Your task to perform on an android device: Go to location settings Image 0: 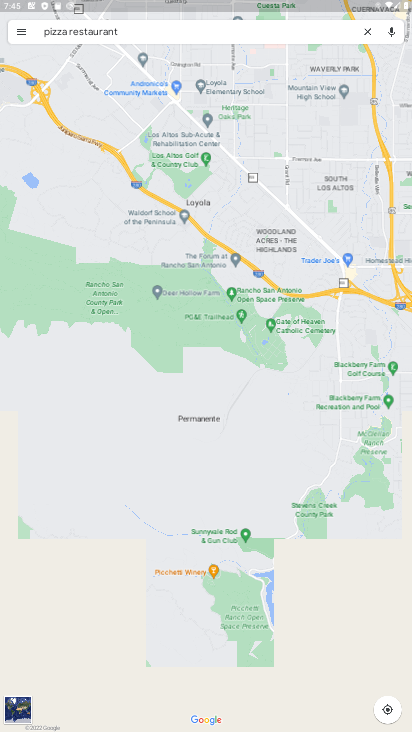
Step 0: press home button
Your task to perform on an android device: Go to location settings Image 1: 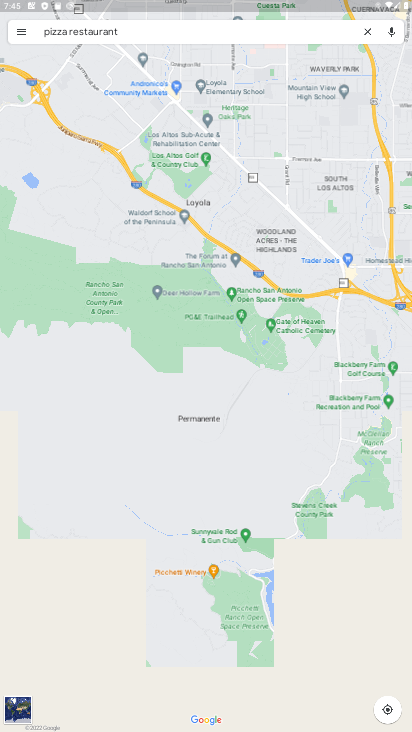
Step 1: drag from (228, 521) to (237, 213)
Your task to perform on an android device: Go to location settings Image 2: 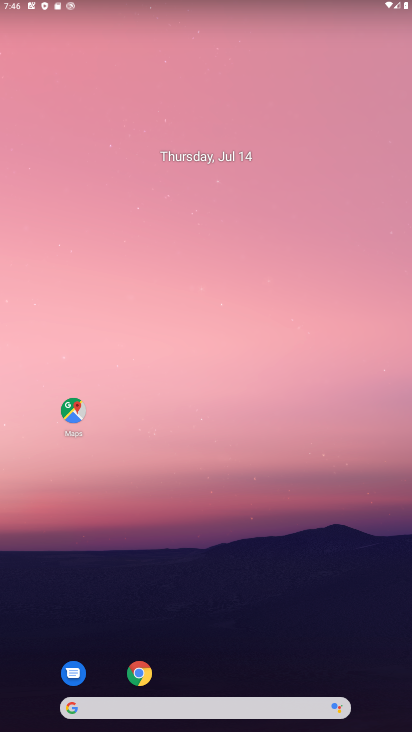
Step 2: drag from (208, 484) to (211, 243)
Your task to perform on an android device: Go to location settings Image 3: 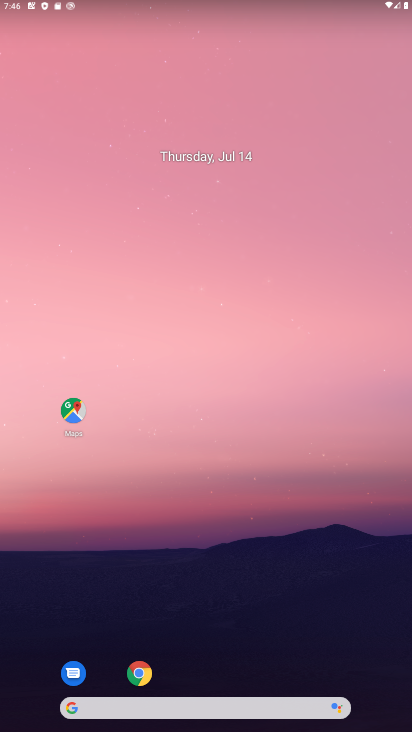
Step 3: drag from (214, 608) to (220, 310)
Your task to perform on an android device: Go to location settings Image 4: 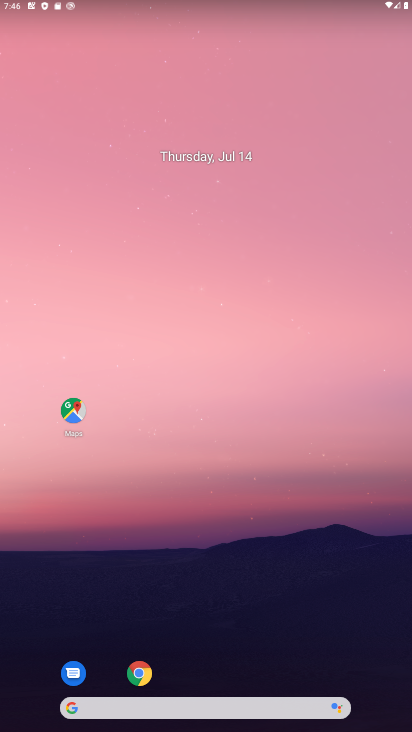
Step 4: drag from (210, 680) to (228, 430)
Your task to perform on an android device: Go to location settings Image 5: 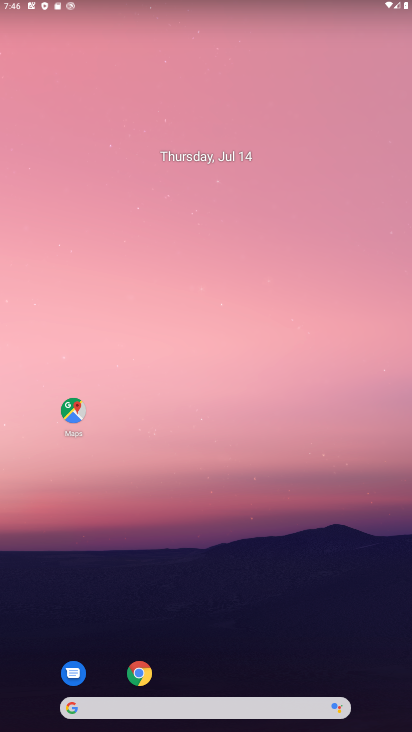
Step 5: drag from (186, 651) to (211, 194)
Your task to perform on an android device: Go to location settings Image 6: 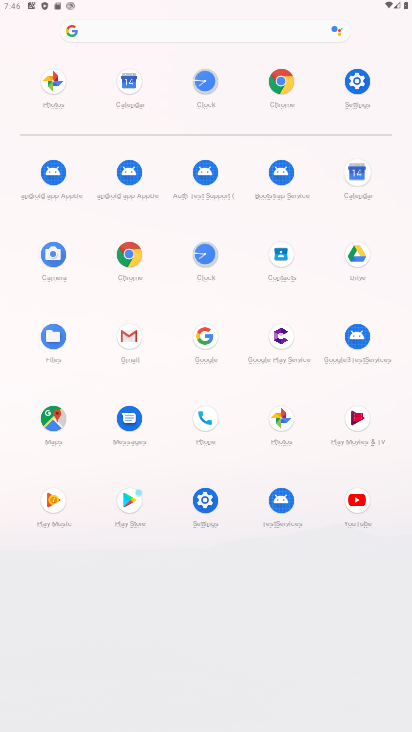
Step 6: click (352, 86)
Your task to perform on an android device: Go to location settings Image 7: 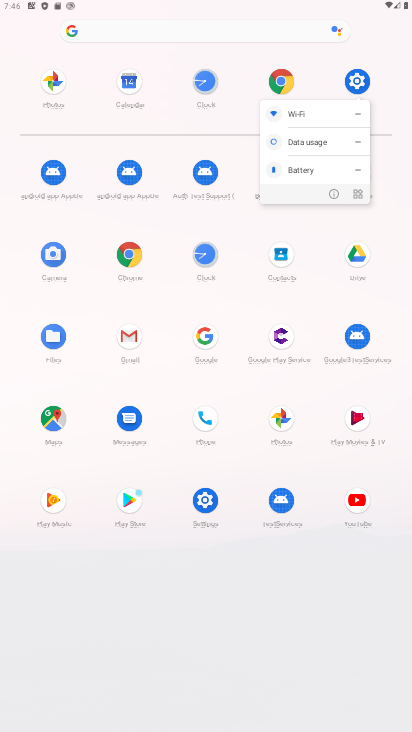
Step 7: click (332, 197)
Your task to perform on an android device: Go to location settings Image 8: 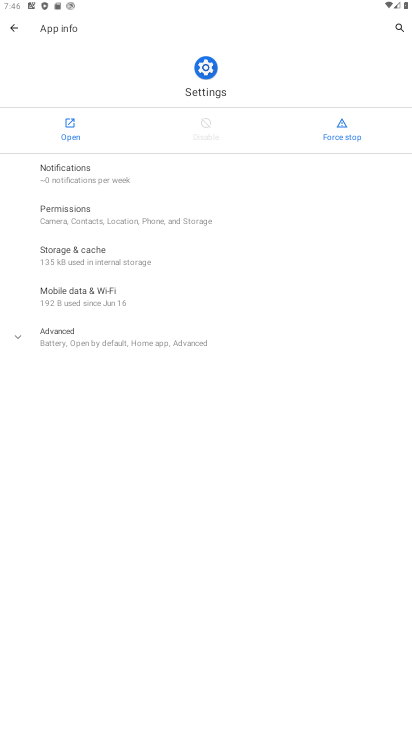
Step 8: click (63, 136)
Your task to perform on an android device: Go to location settings Image 9: 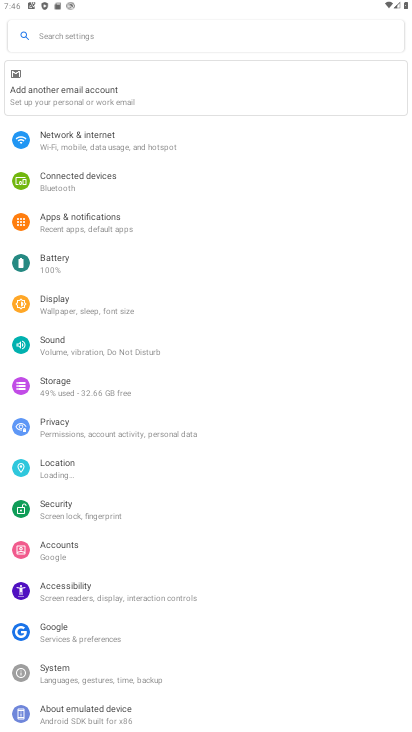
Step 9: drag from (188, 493) to (192, 305)
Your task to perform on an android device: Go to location settings Image 10: 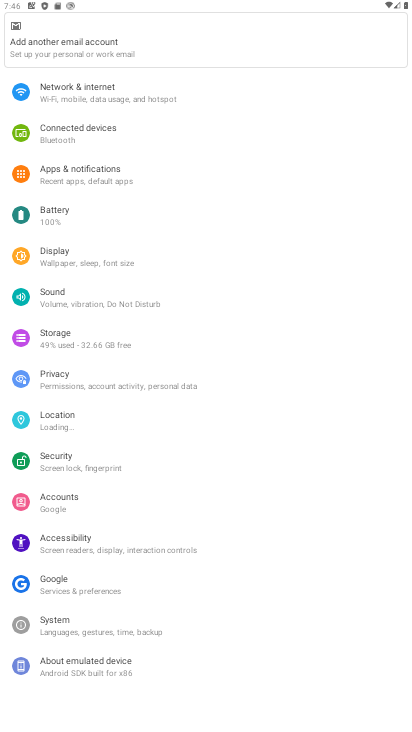
Step 10: click (87, 420)
Your task to perform on an android device: Go to location settings Image 11: 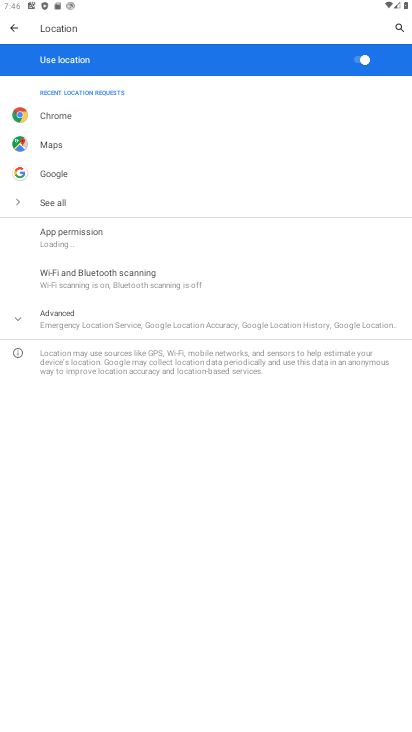
Step 11: click (69, 315)
Your task to perform on an android device: Go to location settings Image 12: 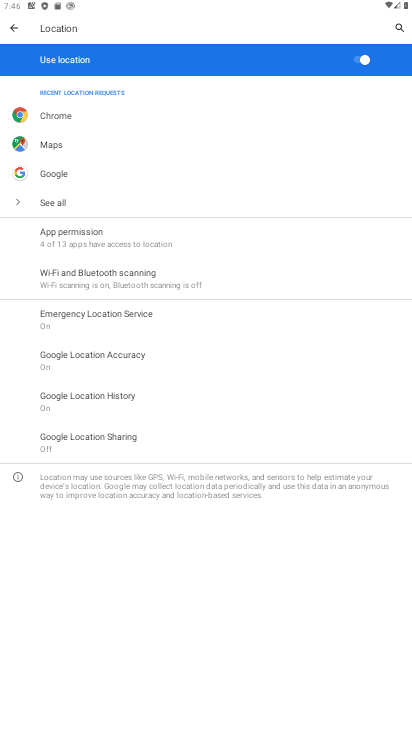
Step 12: task complete